Your task to perform on an android device: Set the phone to "Do not disturb". Image 0: 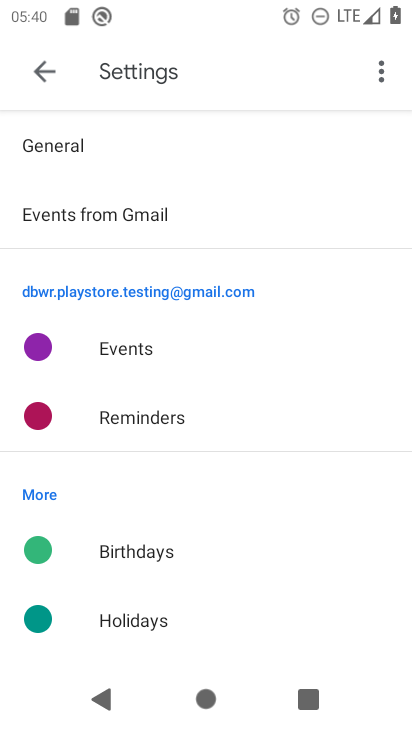
Step 0: press home button
Your task to perform on an android device: Set the phone to "Do not disturb". Image 1: 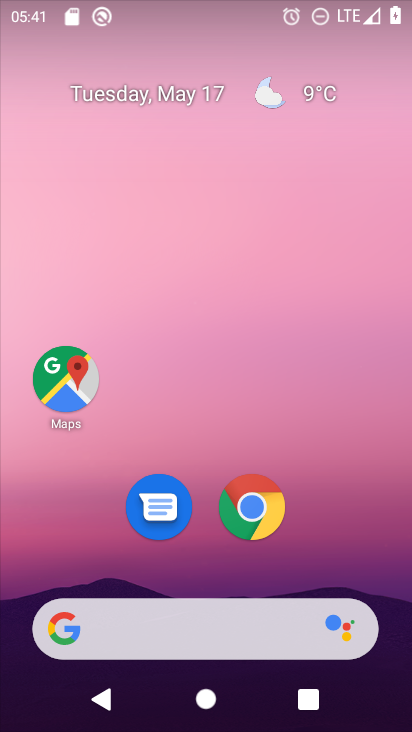
Step 1: drag from (334, 559) to (247, 106)
Your task to perform on an android device: Set the phone to "Do not disturb". Image 2: 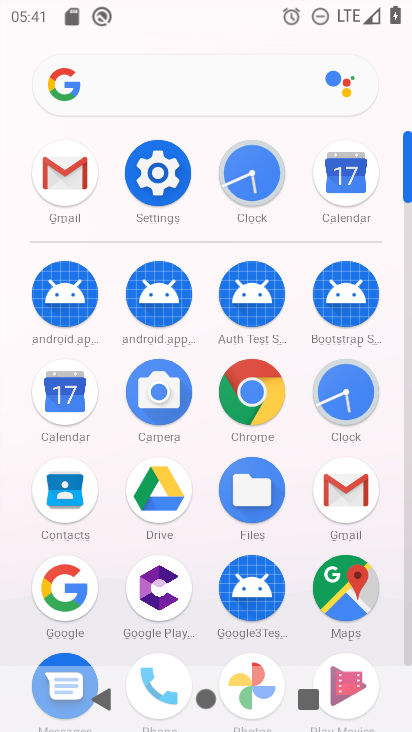
Step 2: click (161, 159)
Your task to perform on an android device: Set the phone to "Do not disturb". Image 3: 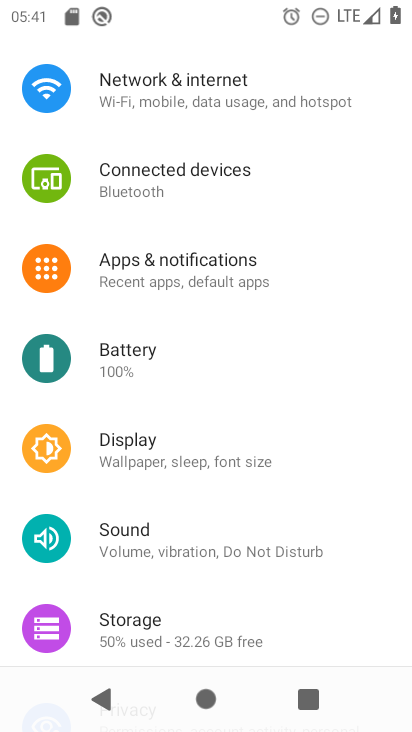
Step 3: click (164, 523)
Your task to perform on an android device: Set the phone to "Do not disturb". Image 4: 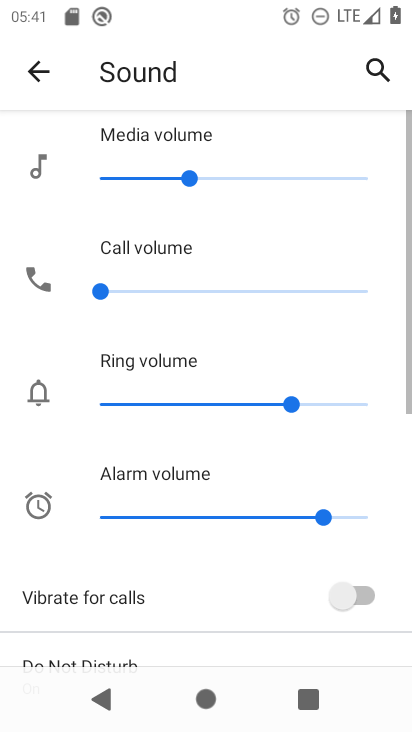
Step 4: drag from (265, 566) to (252, 102)
Your task to perform on an android device: Set the phone to "Do not disturb". Image 5: 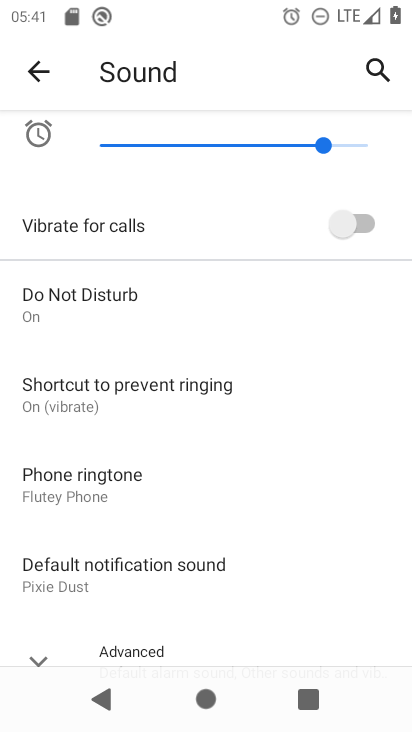
Step 5: click (189, 308)
Your task to perform on an android device: Set the phone to "Do not disturb". Image 6: 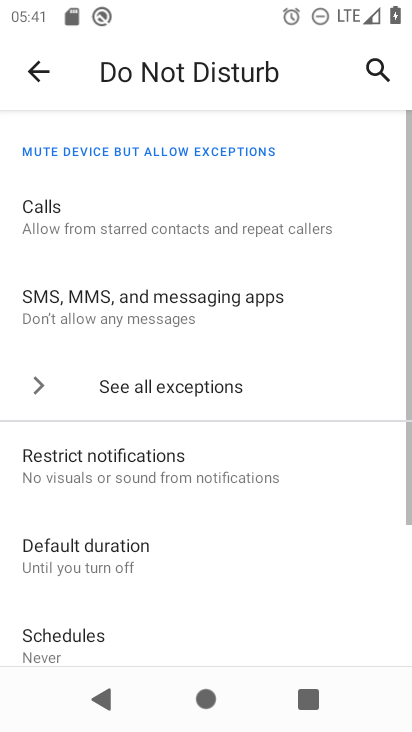
Step 6: task complete